Your task to perform on an android device: Go to notification settings Image 0: 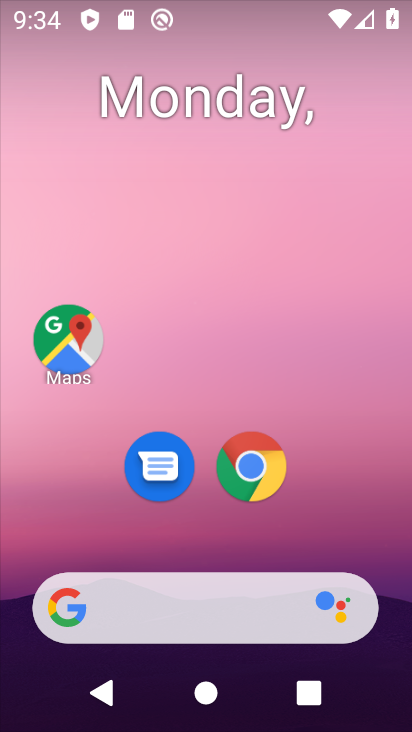
Step 0: drag from (309, 480) to (330, 5)
Your task to perform on an android device: Go to notification settings Image 1: 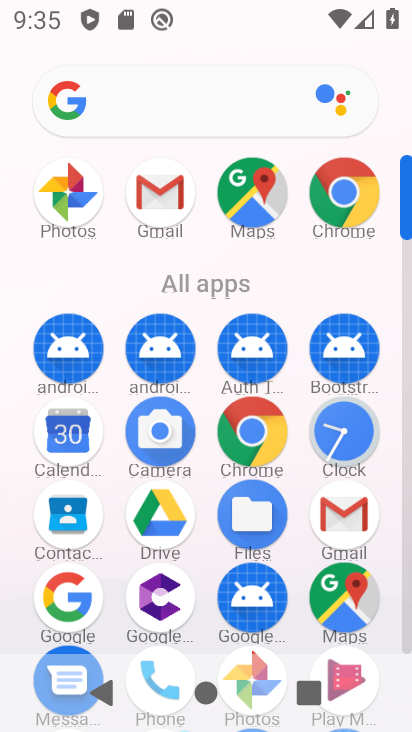
Step 1: click (407, 545)
Your task to perform on an android device: Go to notification settings Image 2: 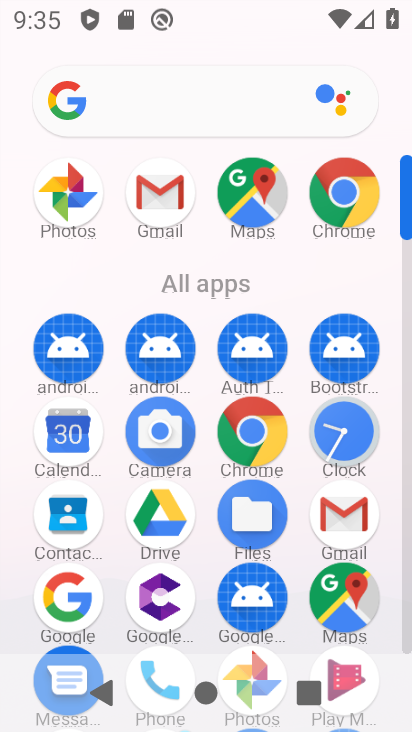
Step 2: click (407, 545)
Your task to perform on an android device: Go to notification settings Image 3: 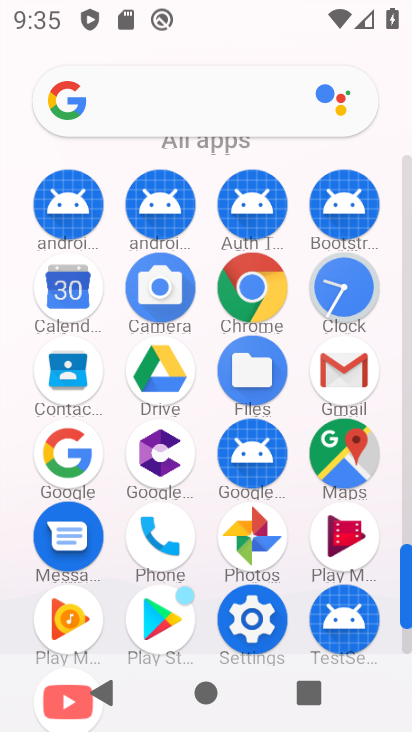
Step 3: click (407, 545)
Your task to perform on an android device: Go to notification settings Image 4: 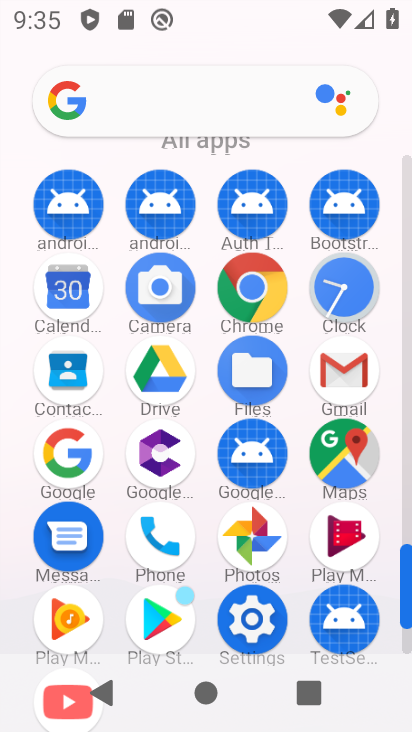
Step 4: click (254, 616)
Your task to perform on an android device: Go to notification settings Image 5: 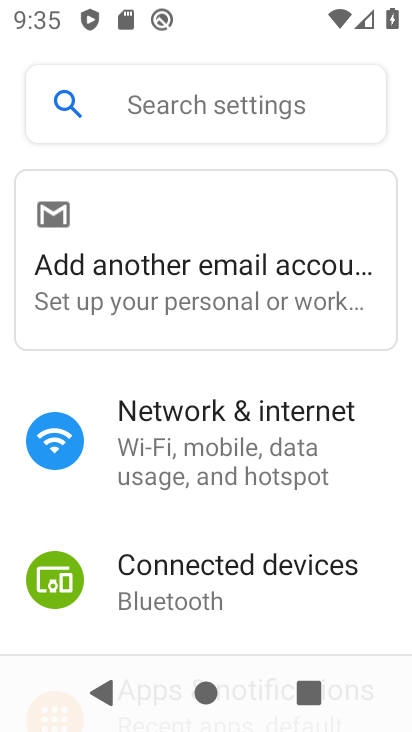
Step 5: drag from (156, 530) to (223, 54)
Your task to perform on an android device: Go to notification settings Image 6: 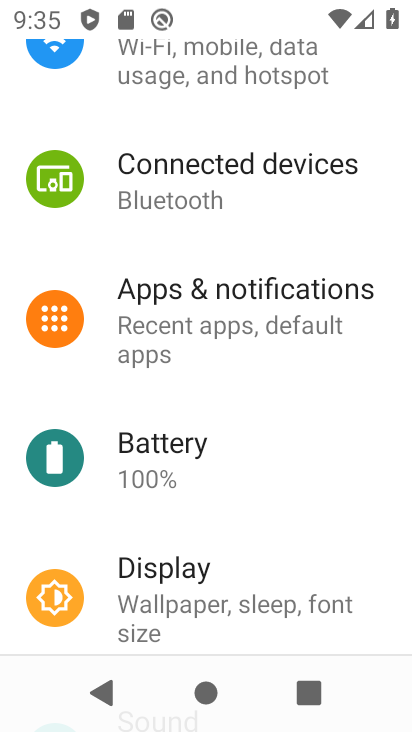
Step 6: click (186, 312)
Your task to perform on an android device: Go to notification settings Image 7: 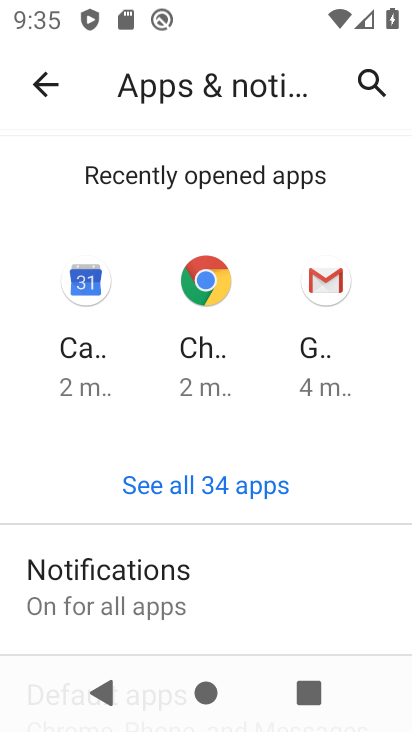
Step 7: click (156, 563)
Your task to perform on an android device: Go to notification settings Image 8: 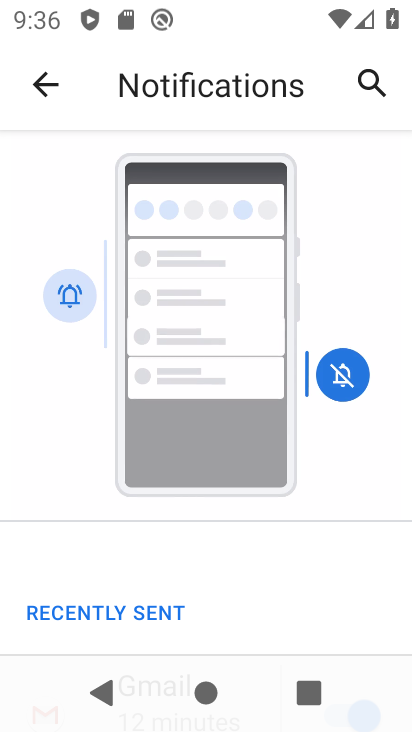
Step 8: task complete